Your task to perform on an android device: turn on sleep mode Image 0: 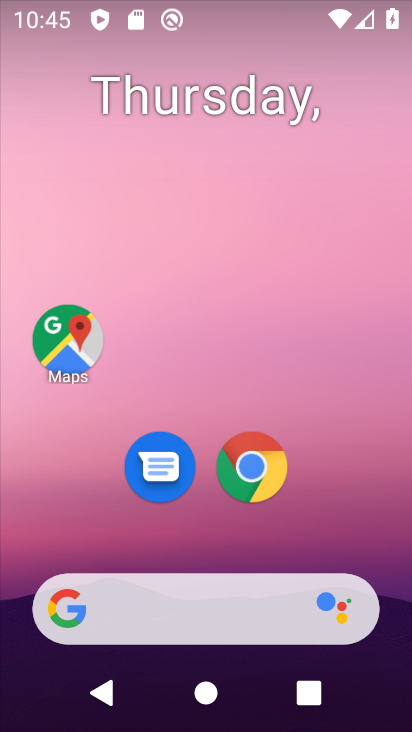
Step 0: drag from (318, 541) to (313, 7)
Your task to perform on an android device: turn on sleep mode Image 1: 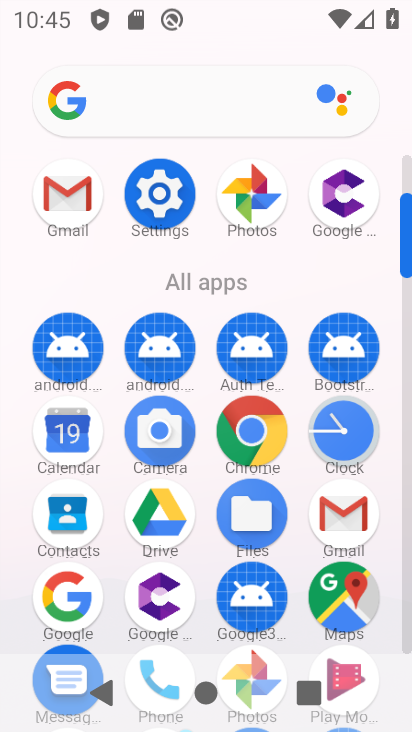
Step 1: click (163, 204)
Your task to perform on an android device: turn on sleep mode Image 2: 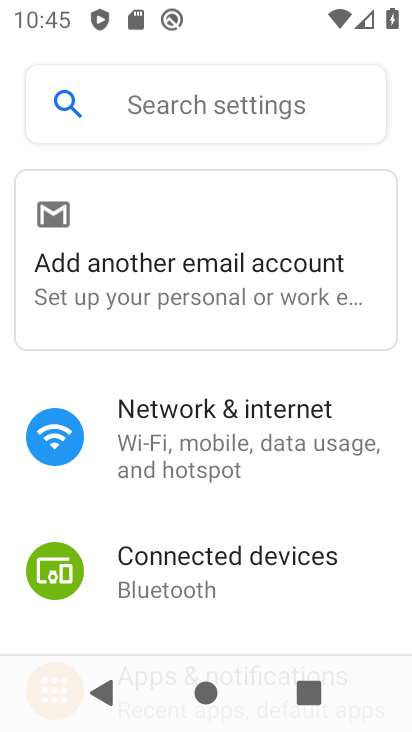
Step 2: drag from (281, 615) to (280, 102)
Your task to perform on an android device: turn on sleep mode Image 3: 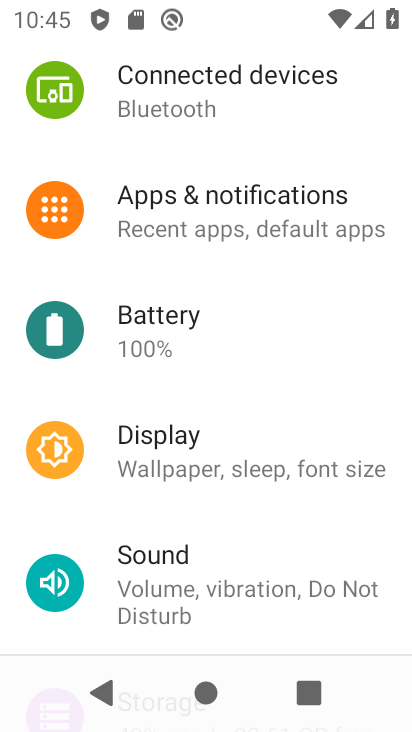
Step 3: click (132, 458)
Your task to perform on an android device: turn on sleep mode Image 4: 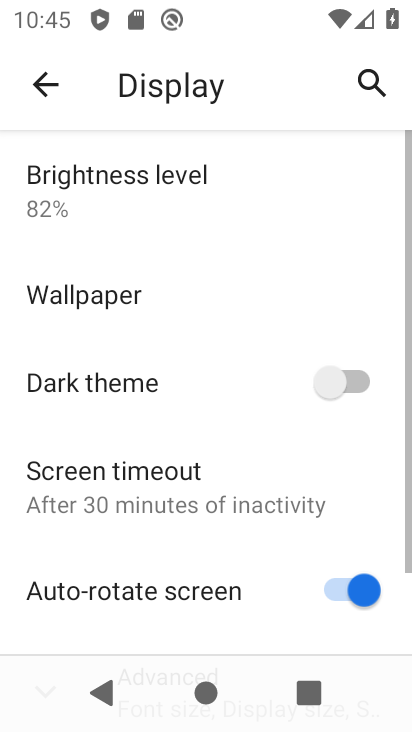
Step 4: drag from (176, 499) to (178, 106)
Your task to perform on an android device: turn on sleep mode Image 5: 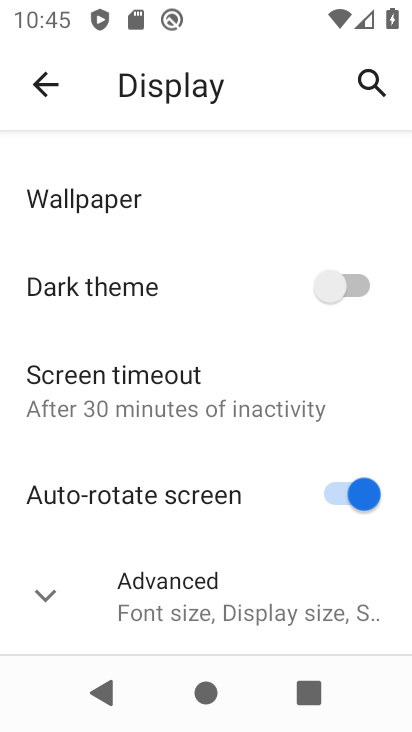
Step 5: click (54, 598)
Your task to perform on an android device: turn on sleep mode Image 6: 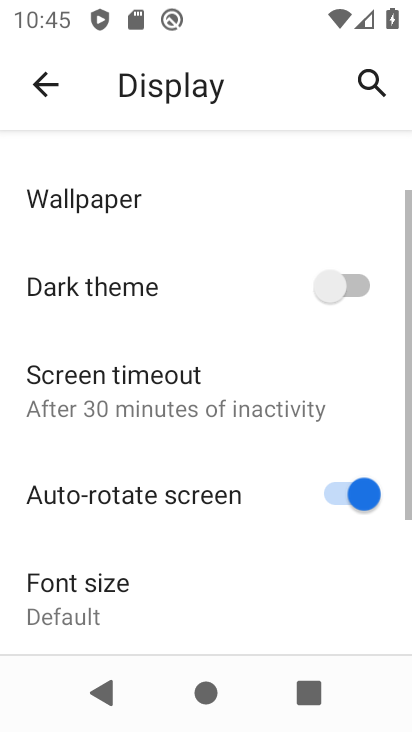
Step 6: task complete